Your task to perform on an android device: turn smart compose on in the gmail app Image 0: 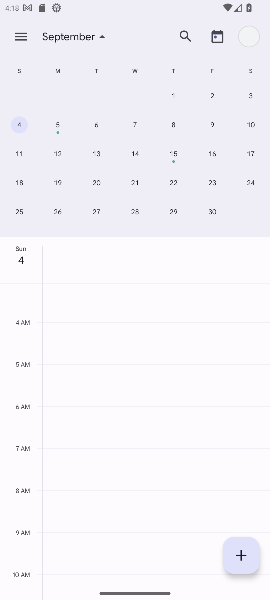
Step 0: press home button
Your task to perform on an android device: turn smart compose on in the gmail app Image 1: 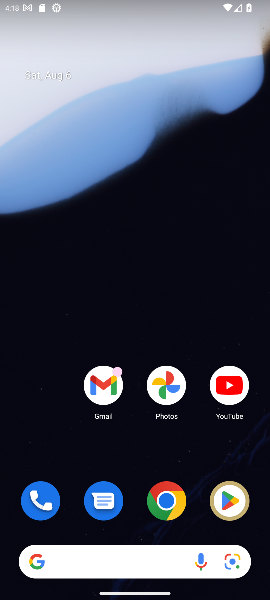
Step 1: click (103, 382)
Your task to perform on an android device: turn smart compose on in the gmail app Image 2: 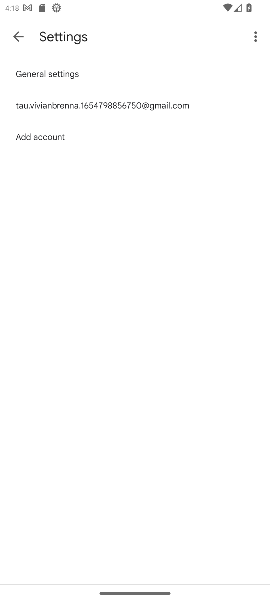
Step 2: click (57, 108)
Your task to perform on an android device: turn smart compose on in the gmail app Image 3: 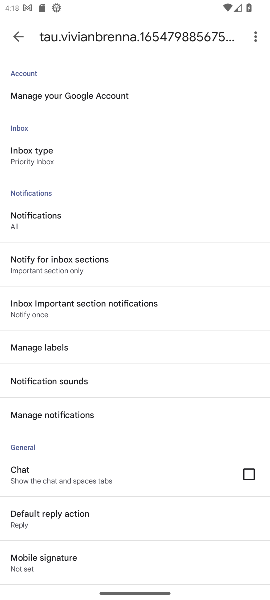
Step 3: task complete